Your task to perform on an android device: choose inbox layout in the gmail app Image 0: 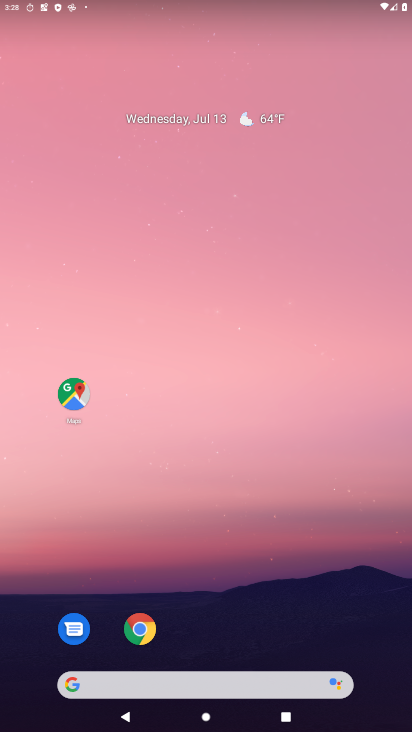
Step 0: drag from (224, 634) to (239, 46)
Your task to perform on an android device: choose inbox layout in the gmail app Image 1: 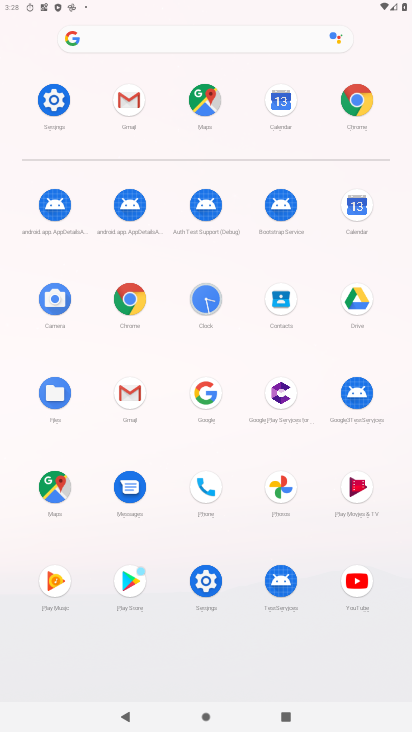
Step 1: click (131, 401)
Your task to perform on an android device: choose inbox layout in the gmail app Image 2: 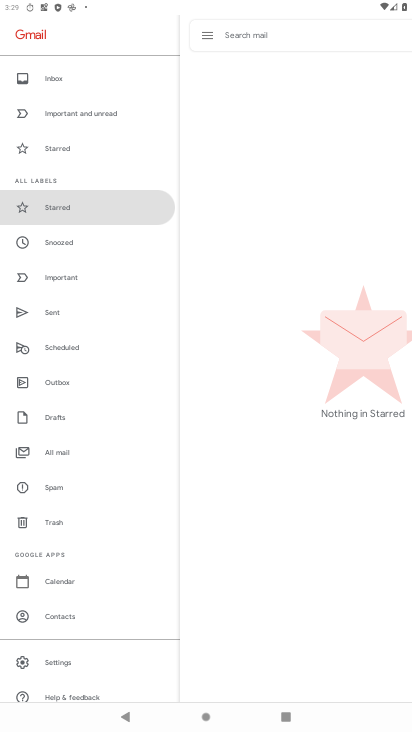
Step 2: click (59, 659)
Your task to perform on an android device: choose inbox layout in the gmail app Image 3: 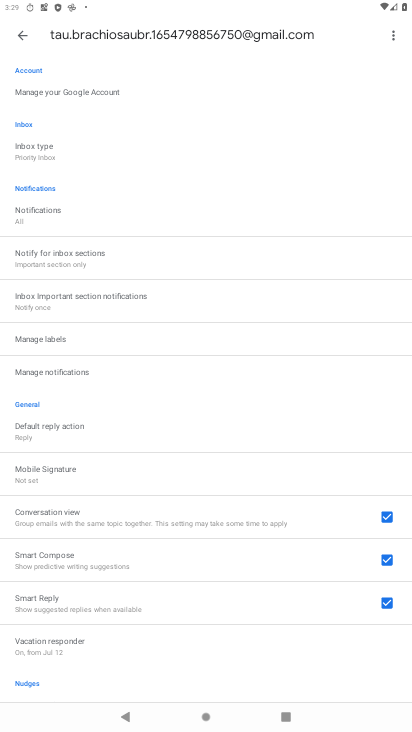
Step 3: click (42, 158)
Your task to perform on an android device: choose inbox layout in the gmail app Image 4: 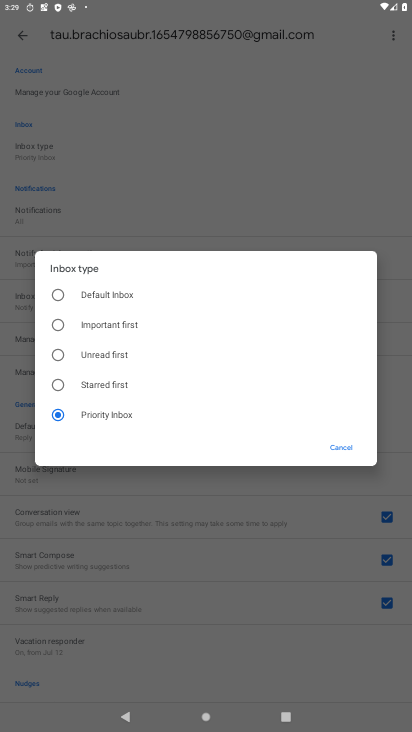
Step 4: click (56, 294)
Your task to perform on an android device: choose inbox layout in the gmail app Image 5: 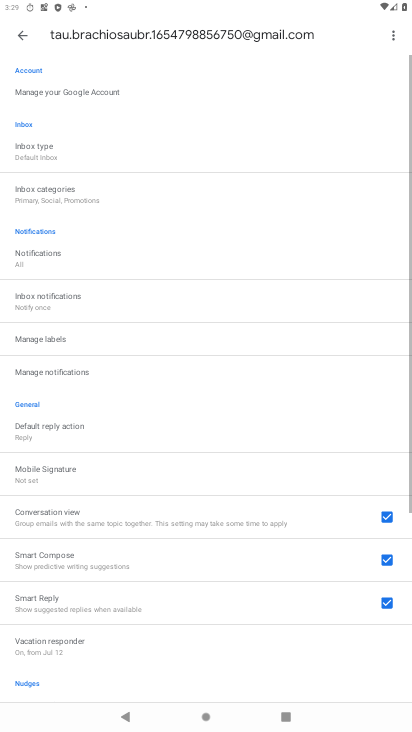
Step 5: task complete